Your task to perform on an android device: read, delete, or share a saved page in the chrome app Image 0: 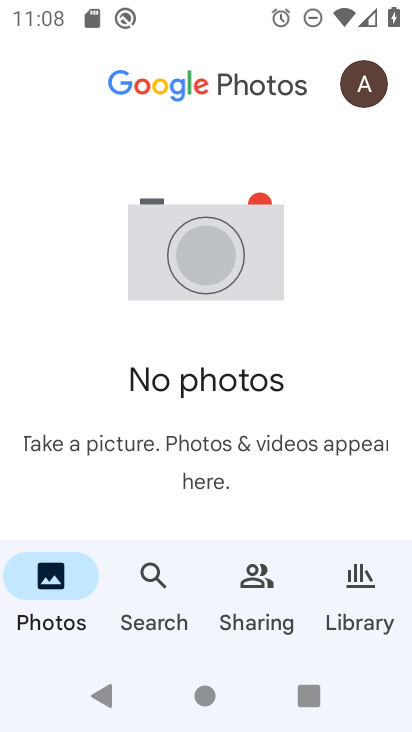
Step 0: press home button
Your task to perform on an android device: read, delete, or share a saved page in the chrome app Image 1: 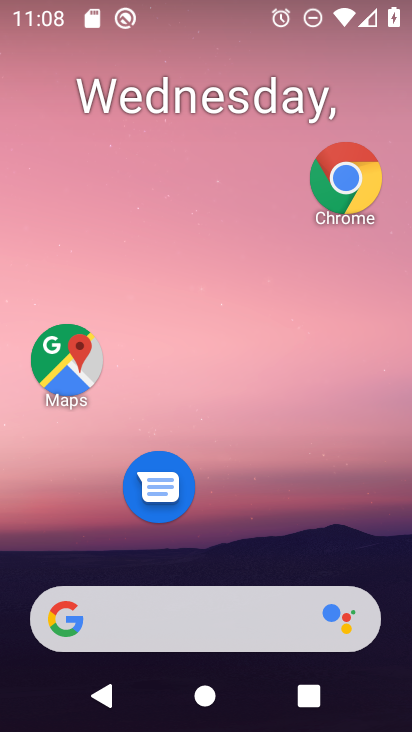
Step 1: drag from (208, 511) to (285, 113)
Your task to perform on an android device: read, delete, or share a saved page in the chrome app Image 2: 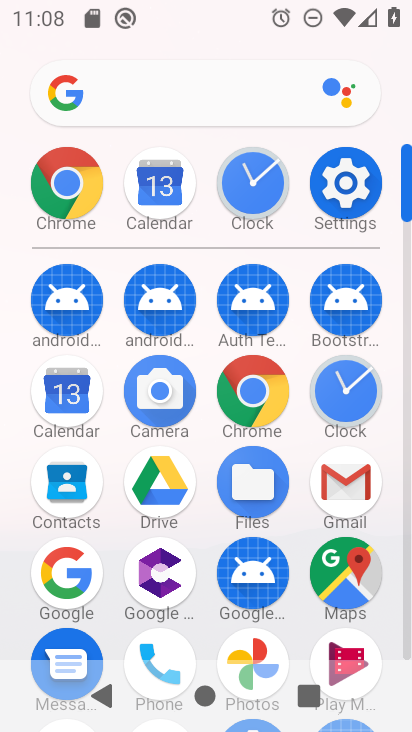
Step 2: click (264, 401)
Your task to perform on an android device: read, delete, or share a saved page in the chrome app Image 3: 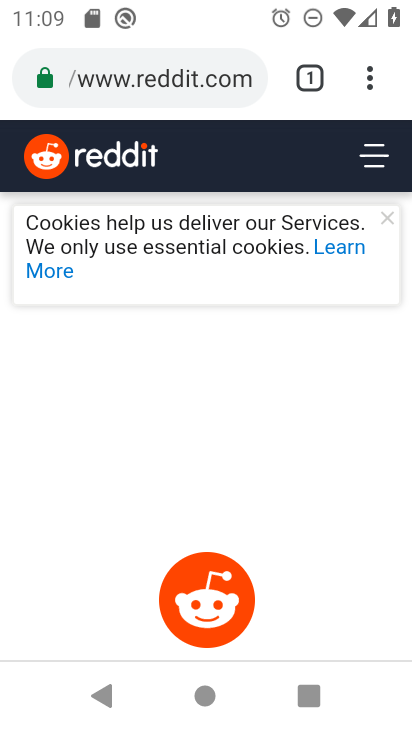
Step 3: click (374, 80)
Your task to perform on an android device: read, delete, or share a saved page in the chrome app Image 4: 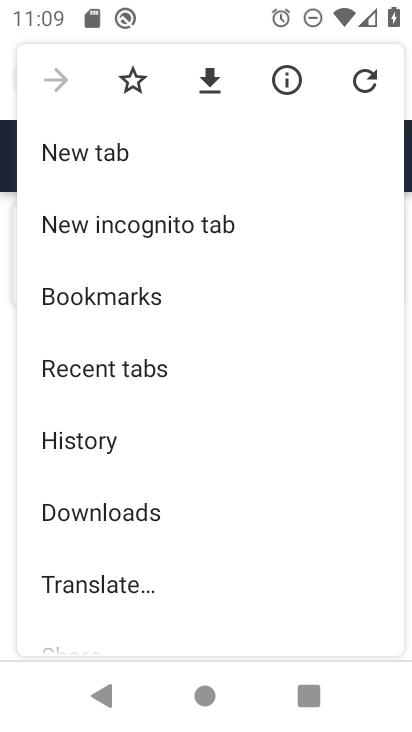
Step 4: click (117, 513)
Your task to perform on an android device: read, delete, or share a saved page in the chrome app Image 5: 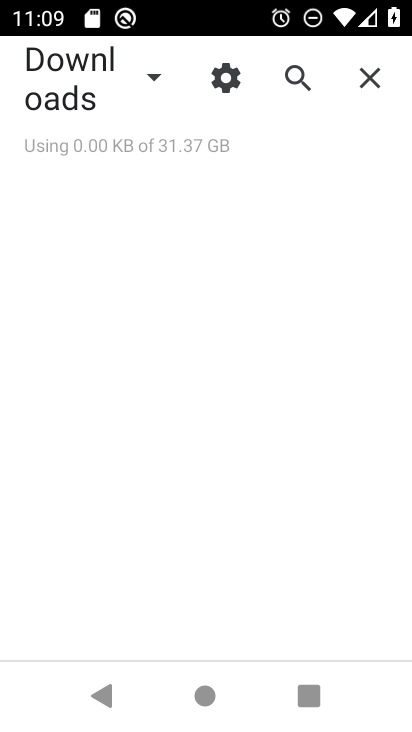
Step 5: click (146, 73)
Your task to perform on an android device: read, delete, or share a saved page in the chrome app Image 6: 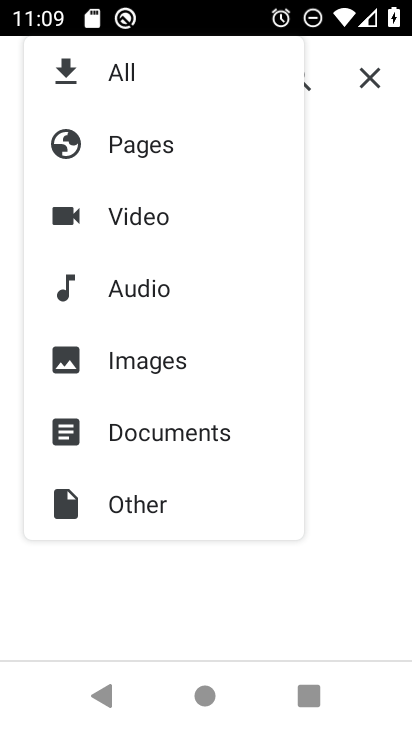
Step 6: click (151, 147)
Your task to perform on an android device: read, delete, or share a saved page in the chrome app Image 7: 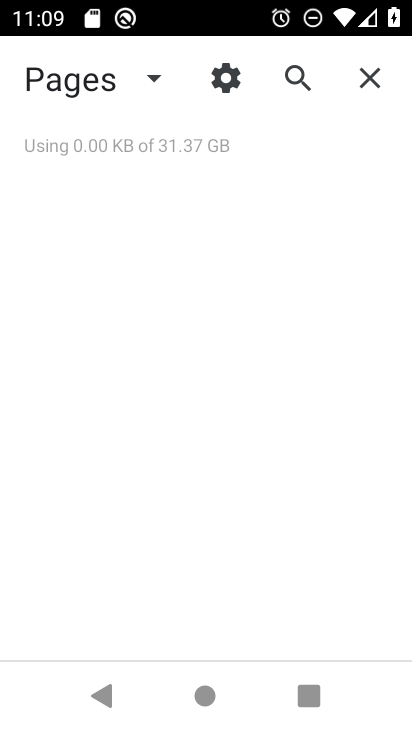
Step 7: task complete